Your task to perform on an android device: delete location history Image 0: 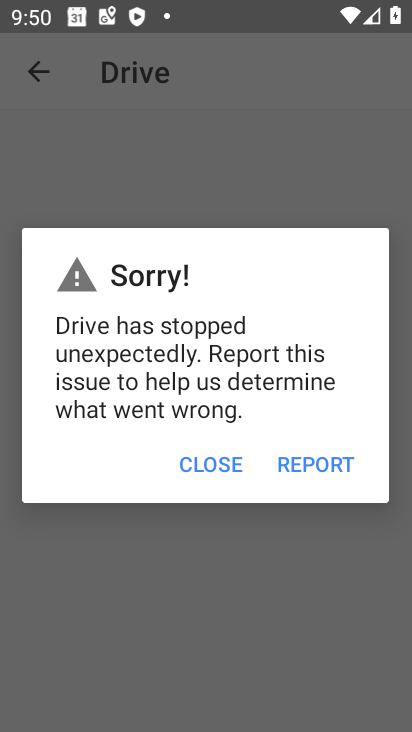
Step 0: press home button
Your task to perform on an android device: delete location history Image 1: 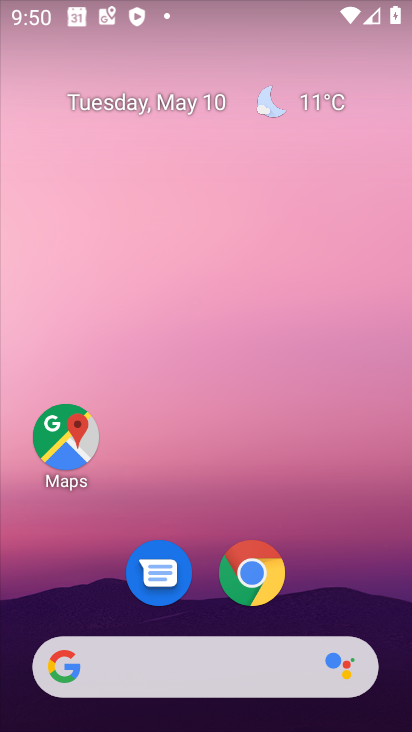
Step 1: click (66, 433)
Your task to perform on an android device: delete location history Image 2: 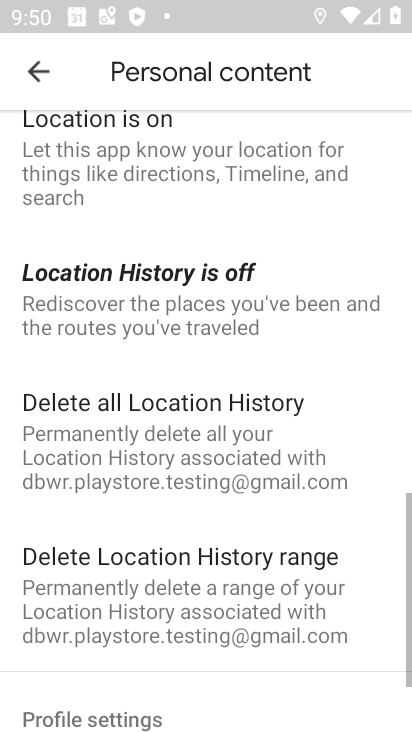
Step 2: click (170, 418)
Your task to perform on an android device: delete location history Image 3: 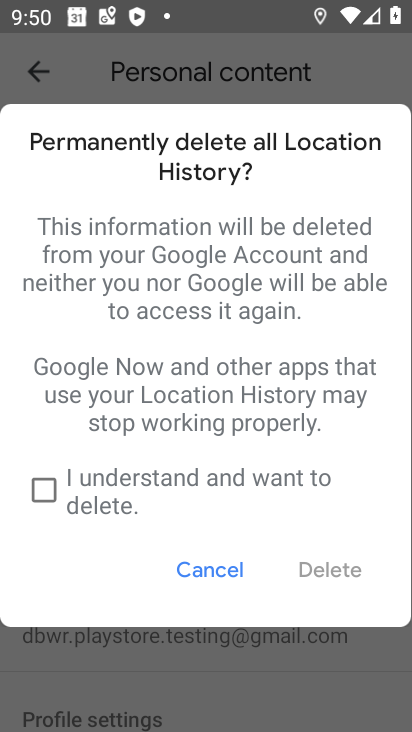
Step 3: click (50, 496)
Your task to perform on an android device: delete location history Image 4: 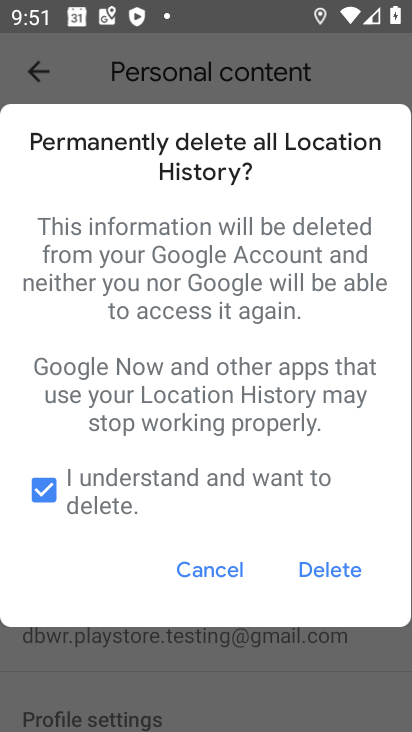
Step 4: click (342, 570)
Your task to perform on an android device: delete location history Image 5: 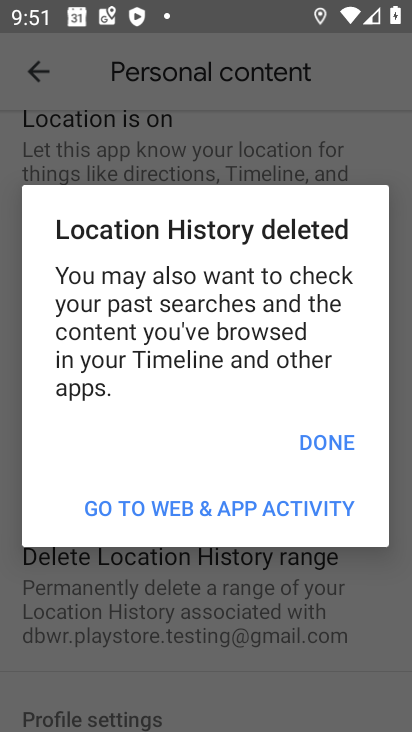
Step 5: click (324, 443)
Your task to perform on an android device: delete location history Image 6: 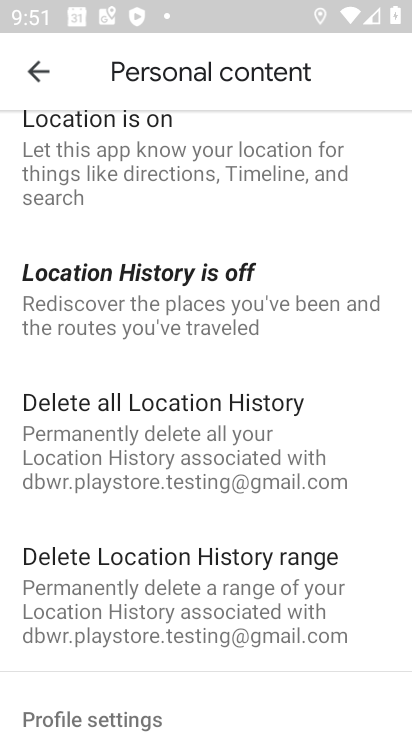
Step 6: task complete